Your task to perform on an android device: Open notification settings Image 0: 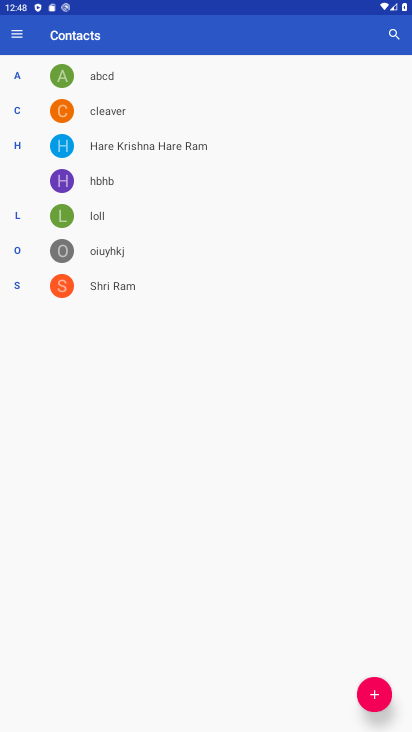
Step 0: press home button
Your task to perform on an android device: Open notification settings Image 1: 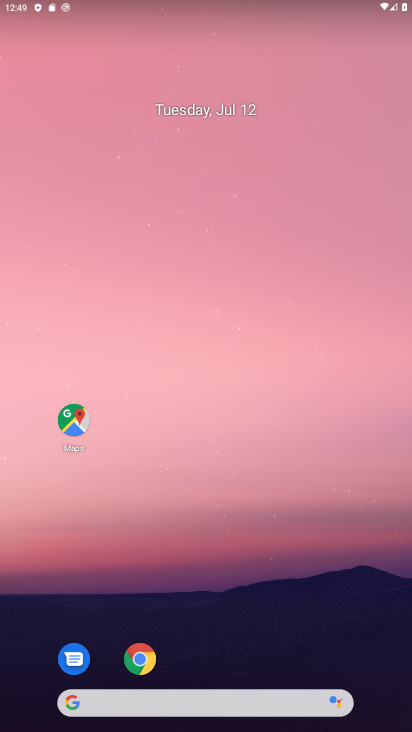
Step 1: drag from (206, 634) to (201, 199)
Your task to perform on an android device: Open notification settings Image 2: 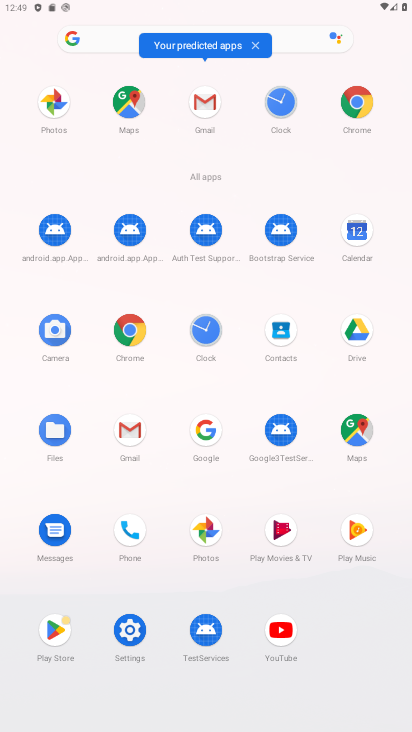
Step 2: click (129, 629)
Your task to perform on an android device: Open notification settings Image 3: 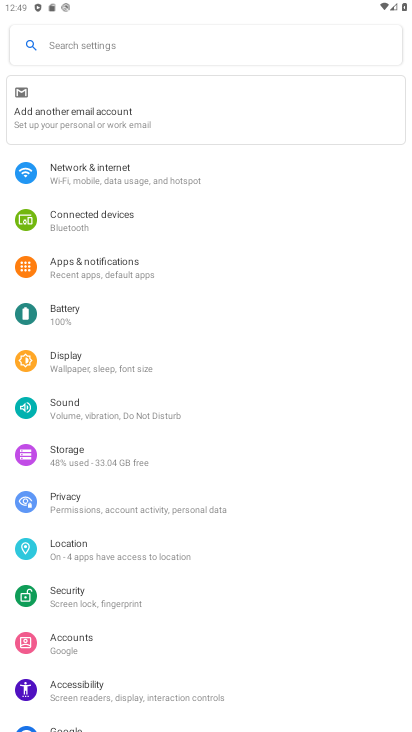
Step 3: click (146, 256)
Your task to perform on an android device: Open notification settings Image 4: 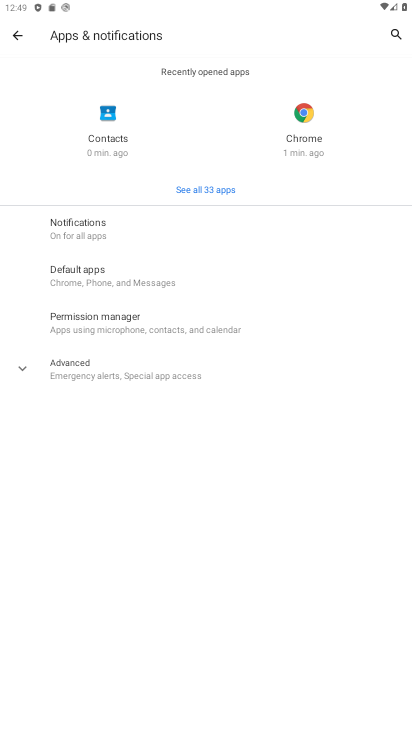
Step 4: click (160, 230)
Your task to perform on an android device: Open notification settings Image 5: 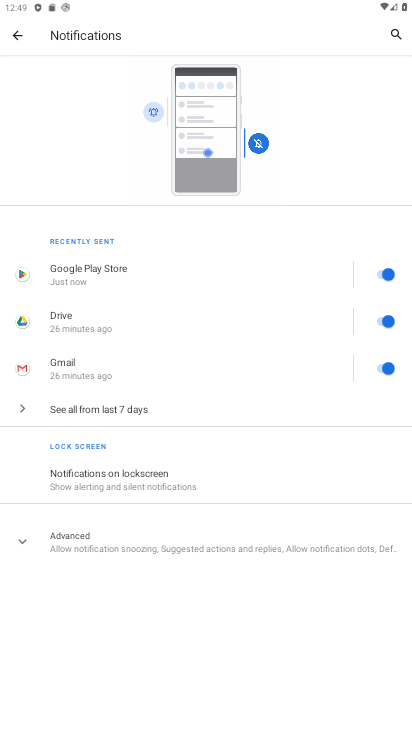
Step 5: task complete